Your task to perform on an android device: What's on my calendar today? Image 0: 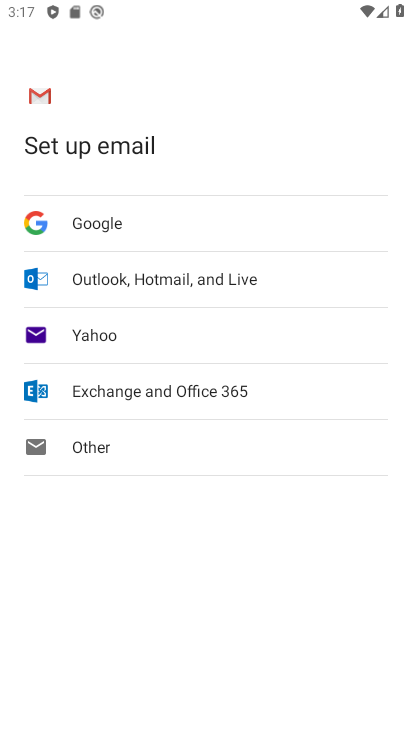
Step 0: press home button
Your task to perform on an android device: What's on my calendar today? Image 1: 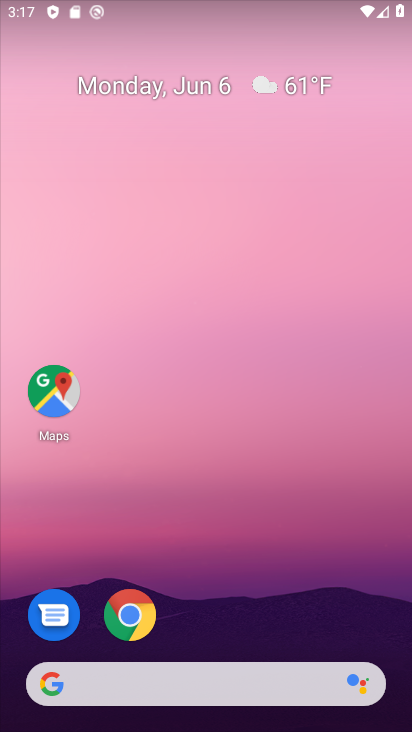
Step 1: drag from (389, 633) to (326, 188)
Your task to perform on an android device: What's on my calendar today? Image 2: 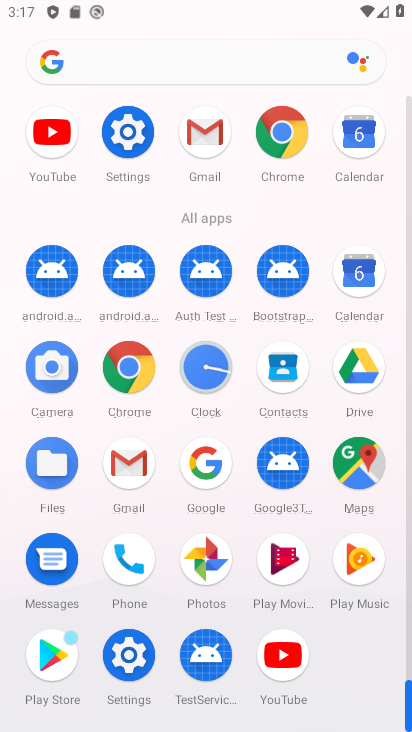
Step 2: click (356, 274)
Your task to perform on an android device: What's on my calendar today? Image 3: 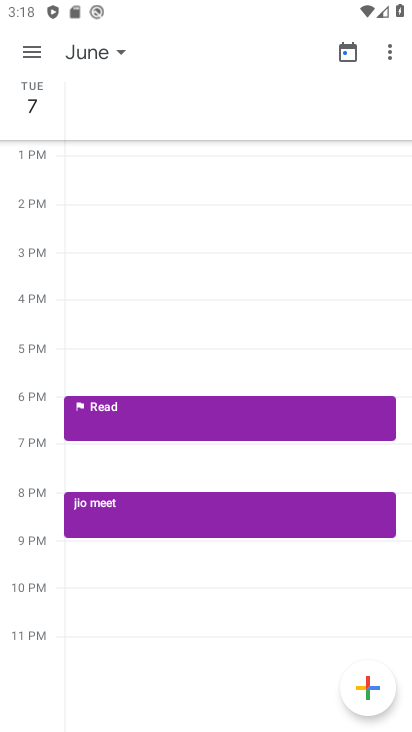
Step 3: click (114, 56)
Your task to perform on an android device: What's on my calendar today? Image 4: 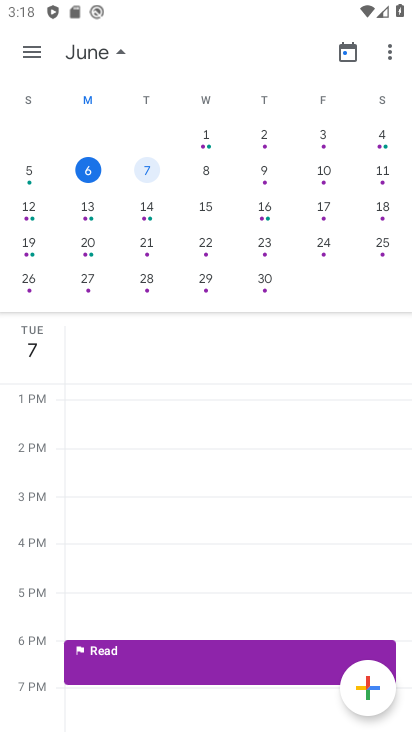
Step 4: click (83, 167)
Your task to perform on an android device: What's on my calendar today? Image 5: 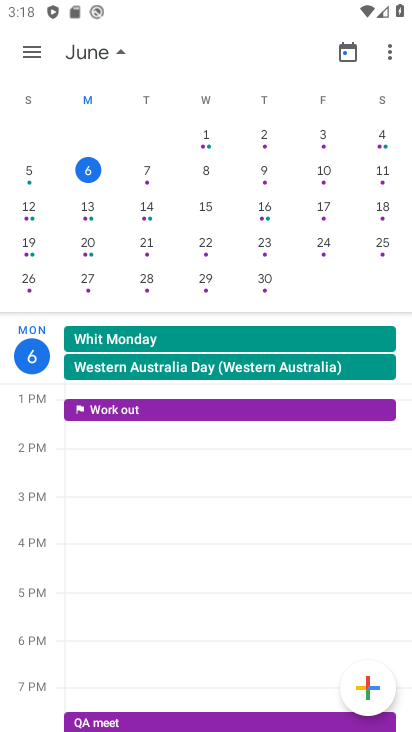
Step 5: task complete